Your task to perform on an android device: set an alarm Image 0: 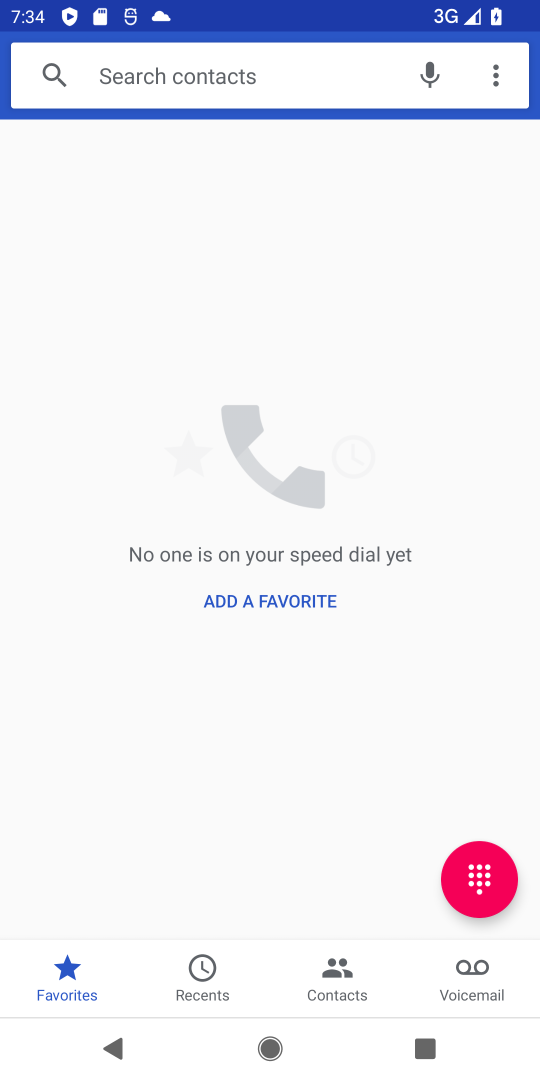
Step 0: press home button
Your task to perform on an android device: set an alarm Image 1: 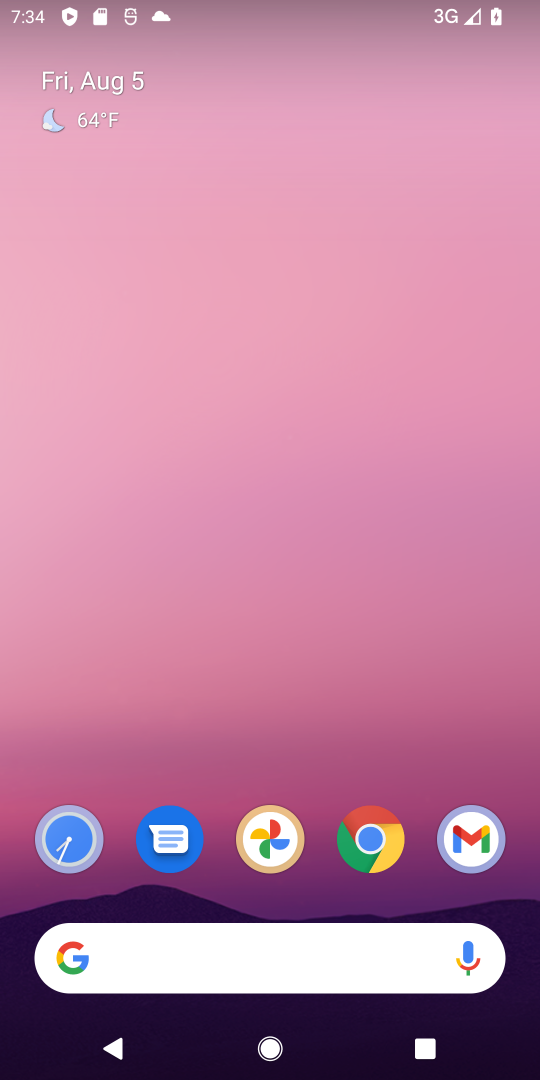
Step 1: drag from (315, 666) to (332, 16)
Your task to perform on an android device: set an alarm Image 2: 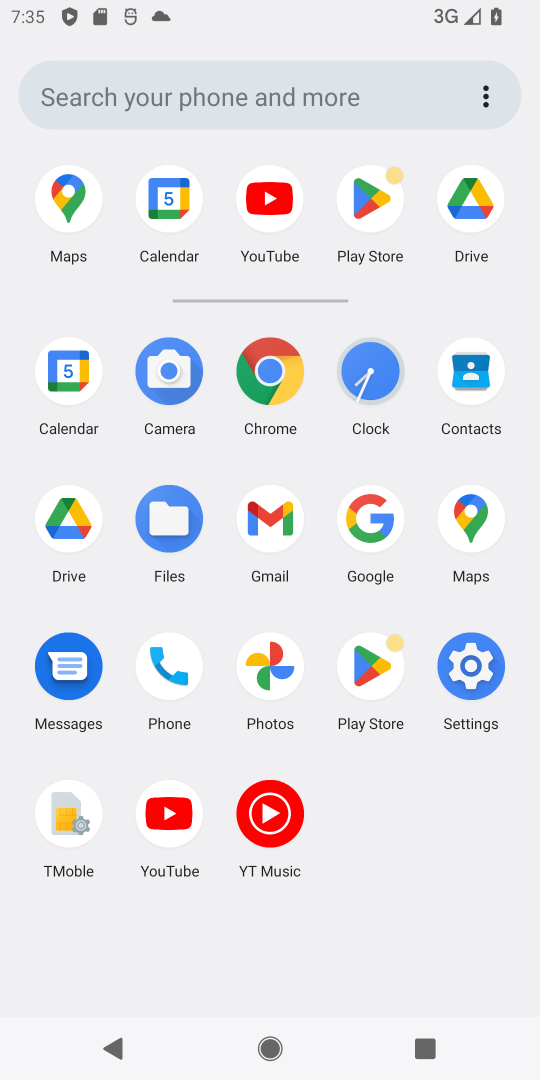
Step 2: click (375, 371)
Your task to perform on an android device: set an alarm Image 3: 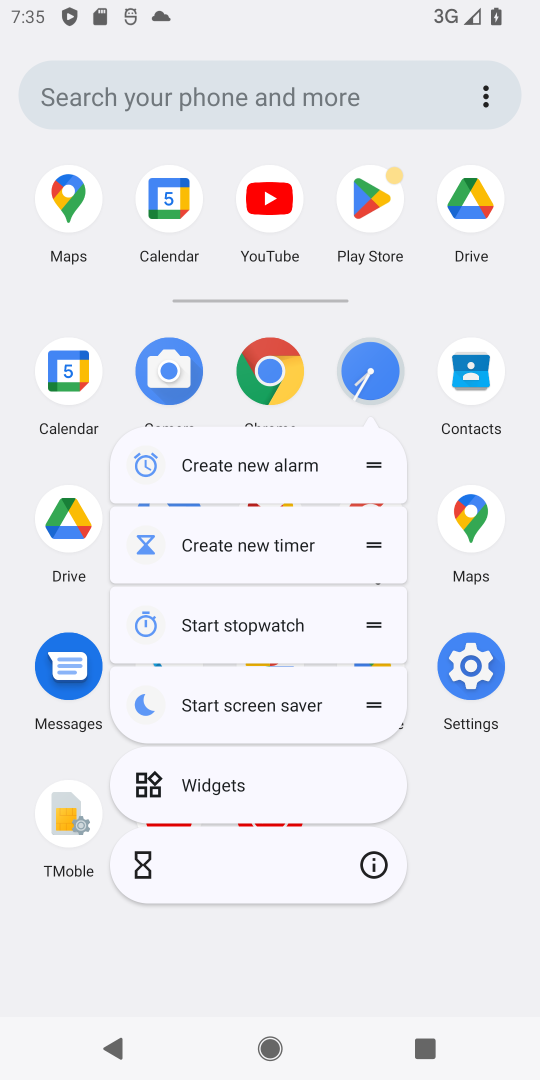
Step 3: click (369, 368)
Your task to perform on an android device: set an alarm Image 4: 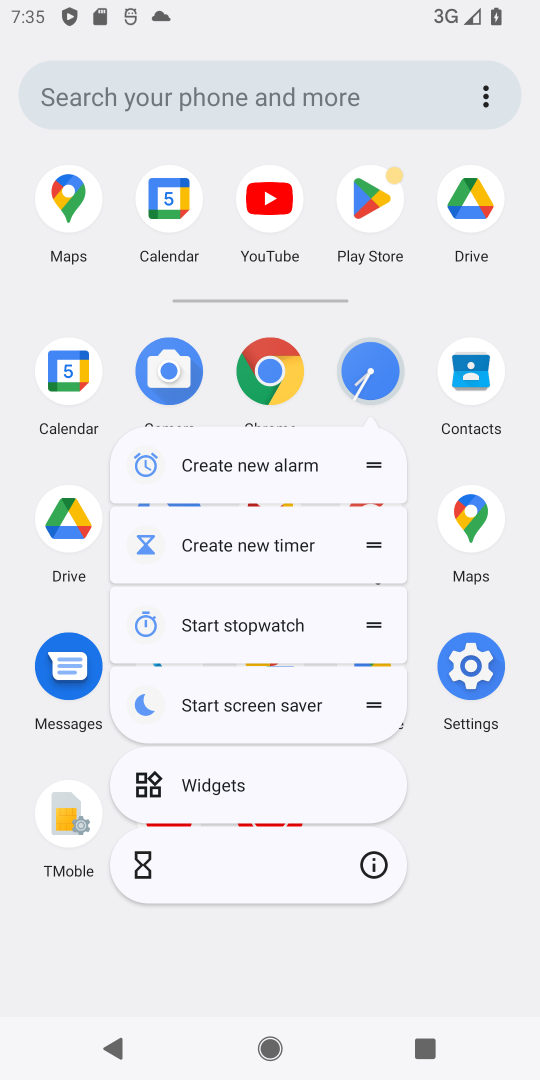
Step 4: click (372, 367)
Your task to perform on an android device: set an alarm Image 5: 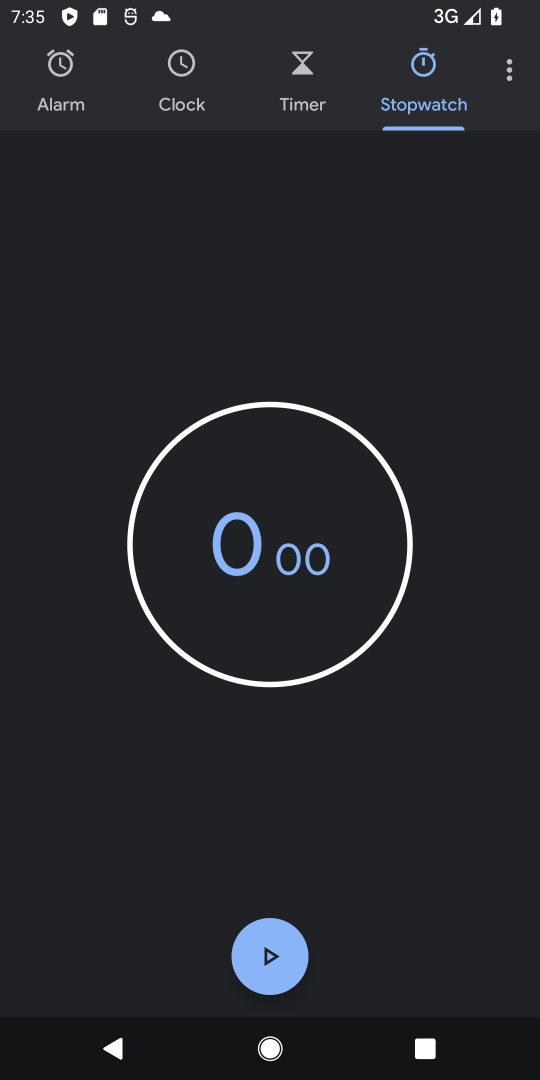
Step 5: click (55, 75)
Your task to perform on an android device: set an alarm Image 6: 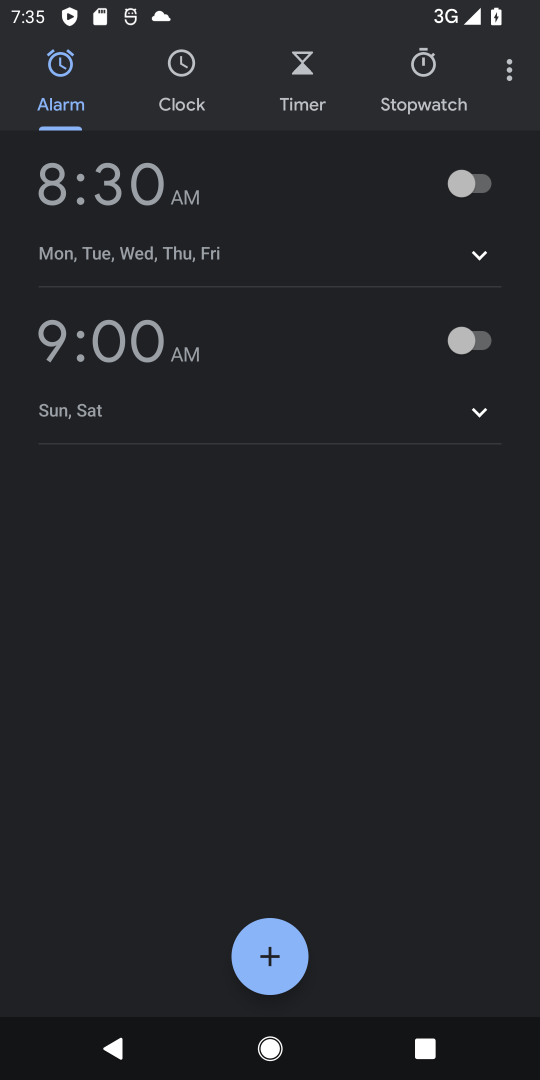
Step 6: click (270, 955)
Your task to perform on an android device: set an alarm Image 7: 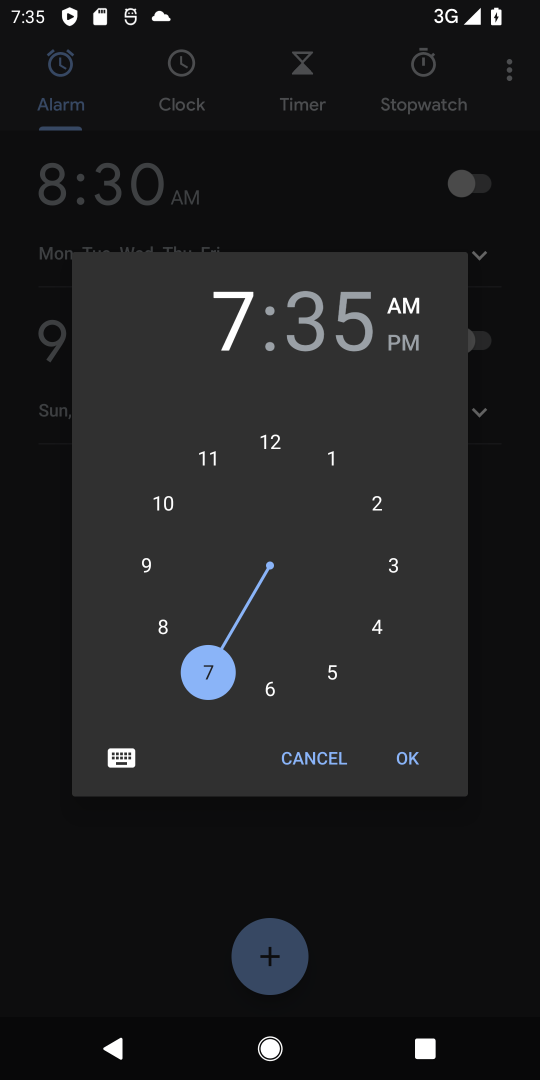
Step 7: click (270, 690)
Your task to perform on an android device: set an alarm Image 8: 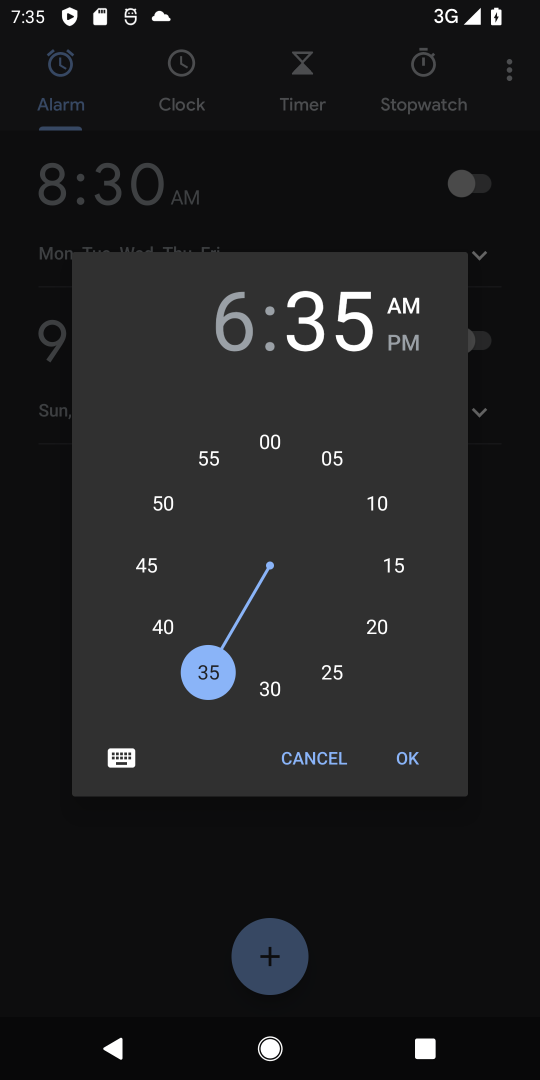
Step 8: click (404, 745)
Your task to perform on an android device: set an alarm Image 9: 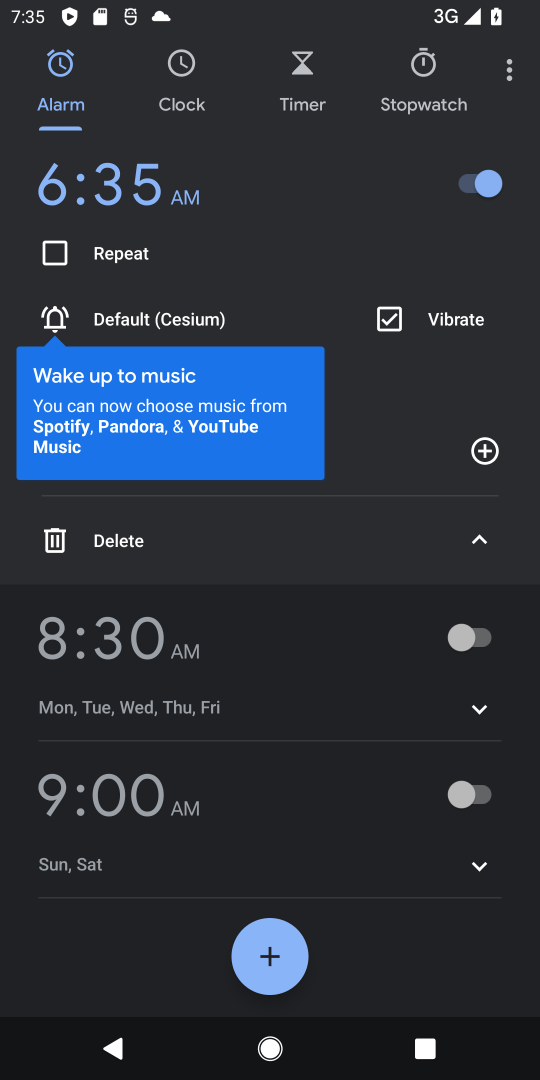
Step 9: task complete